Your task to perform on an android device: all mails in gmail Image 0: 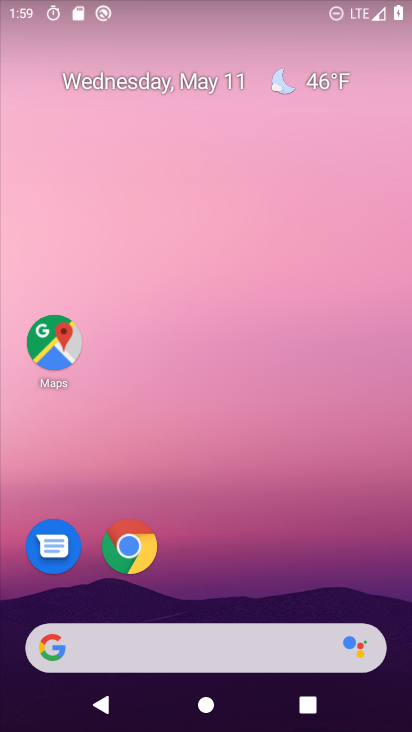
Step 0: drag from (242, 699) to (231, 103)
Your task to perform on an android device: all mails in gmail Image 1: 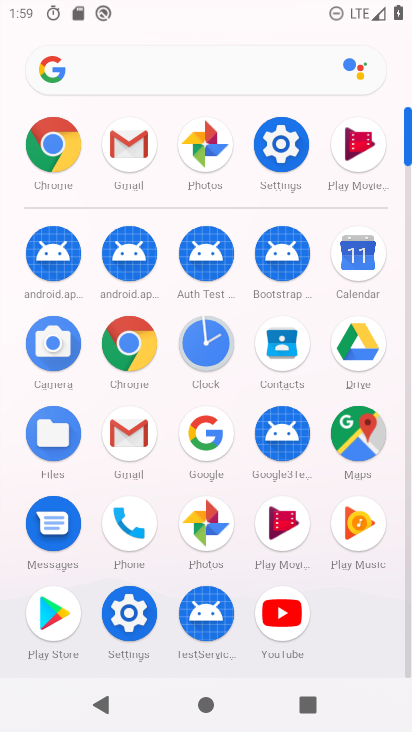
Step 1: click (120, 443)
Your task to perform on an android device: all mails in gmail Image 2: 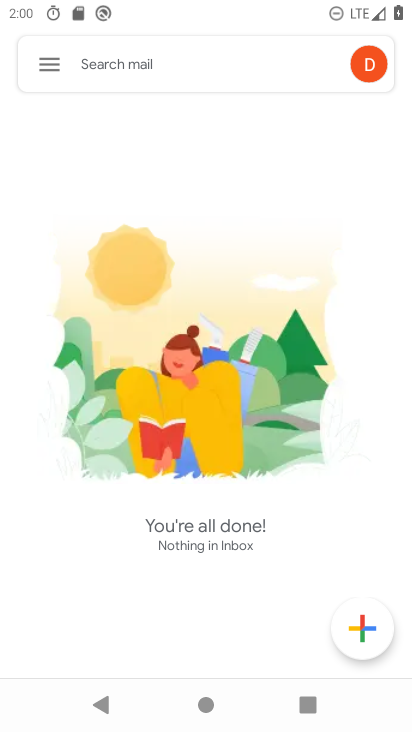
Step 2: click (39, 69)
Your task to perform on an android device: all mails in gmail Image 3: 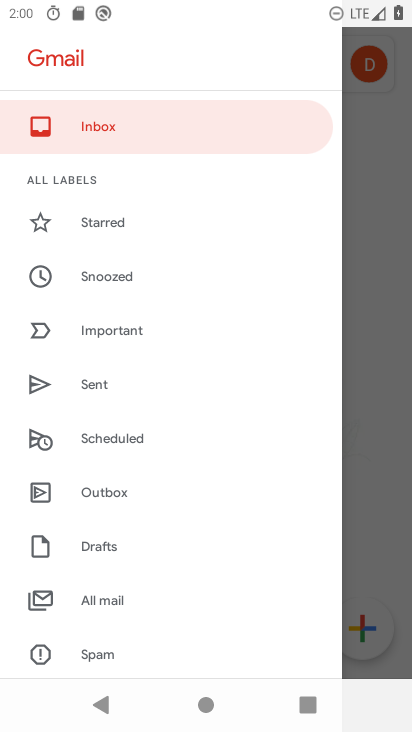
Step 3: drag from (123, 564) to (163, 382)
Your task to perform on an android device: all mails in gmail Image 4: 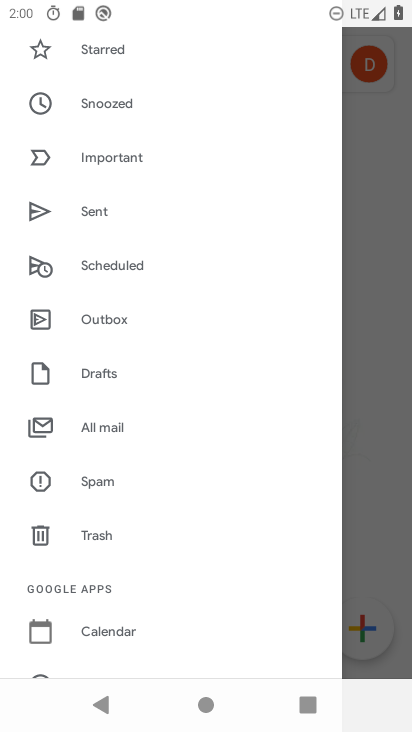
Step 4: drag from (138, 531) to (207, 318)
Your task to perform on an android device: all mails in gmail Image 5: 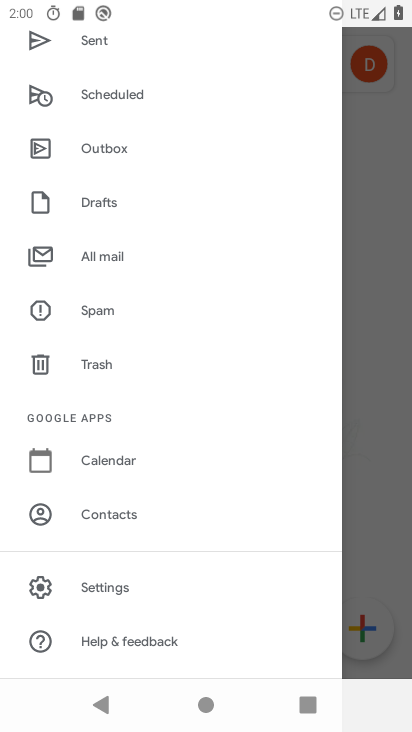
Step 5: drag from (140, 221) to (224, 433)
Your task to perform on an android device: all mails in gmail Image 6: 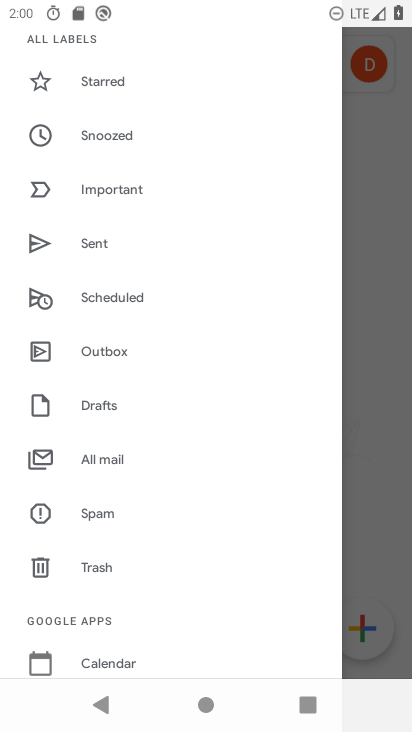
Step 6: click (128, 467)
Your task to perform on an android device: all mails in gmail Image 7: 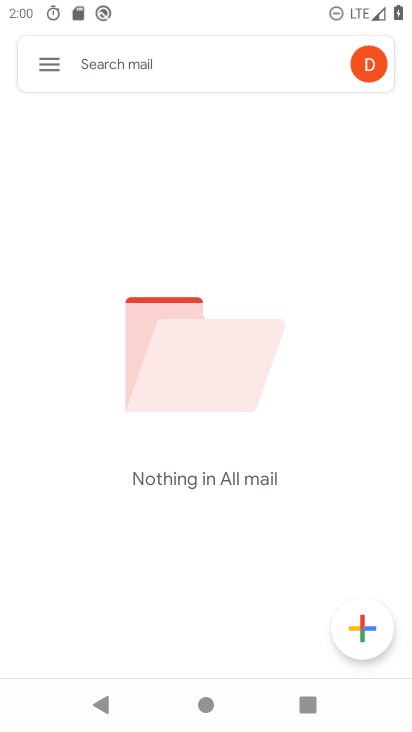
Step 7: task complete